Your task to perform on an android device: Check the weather Image 0: 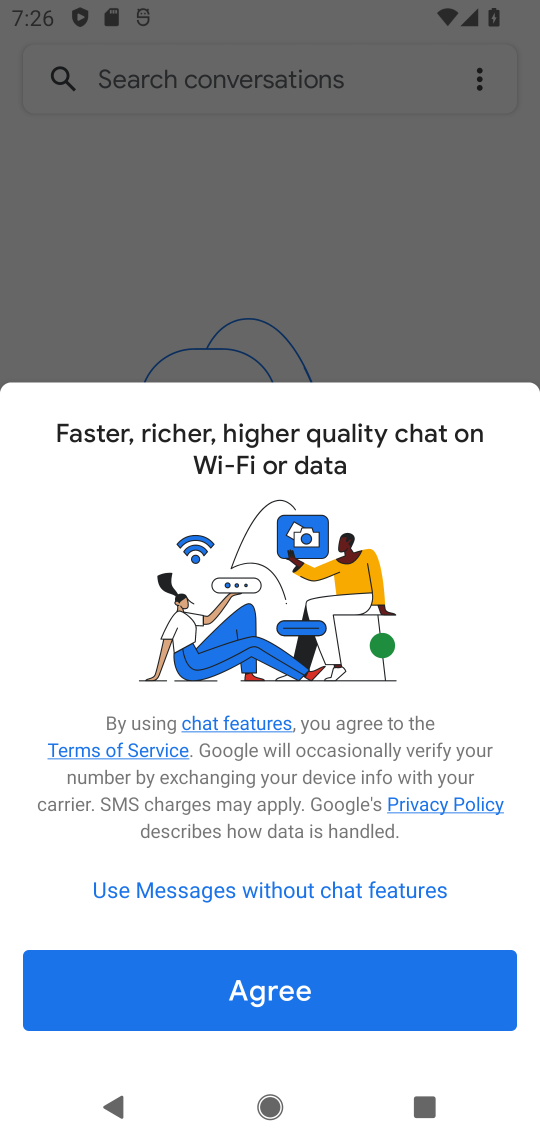
Step 0: press home button
Your task to perform on an android device: Check the weather Image 1: 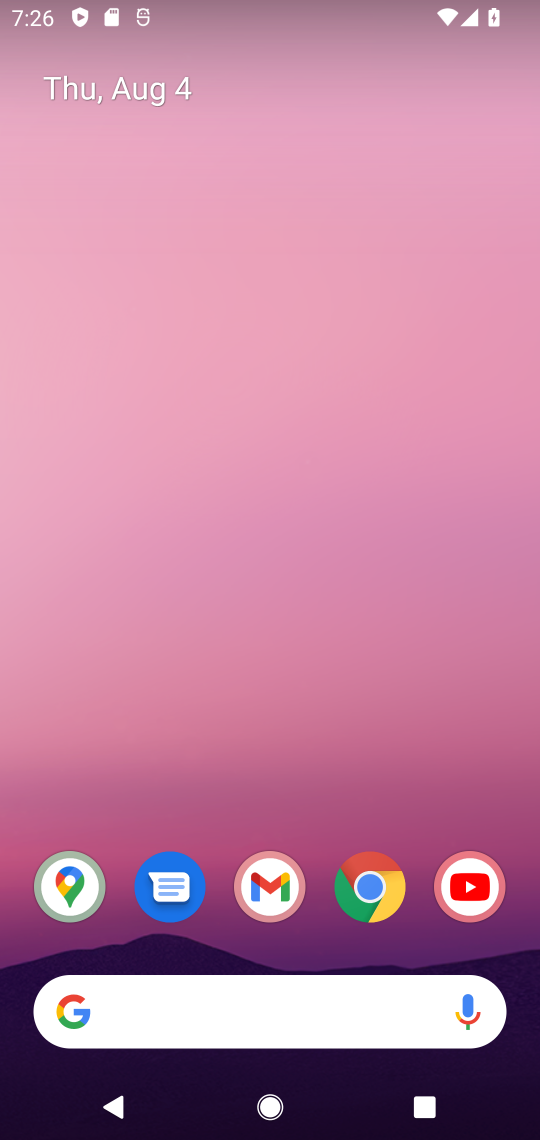
Step 1: drag from (299, 957) to (274, 582)
Your task to perform on an android device: Check the weather Image 2: 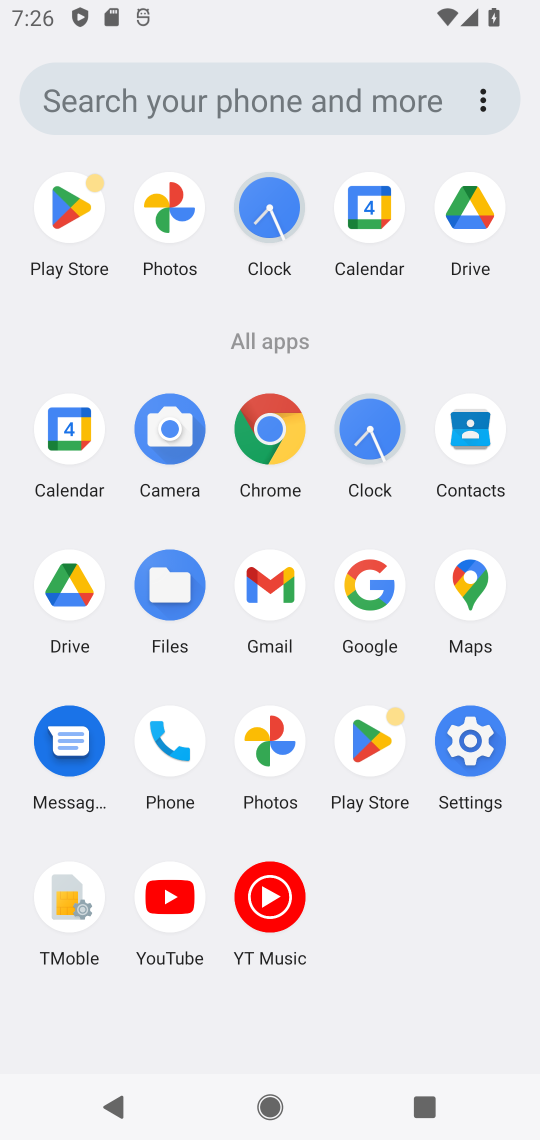
Step 2: click (356, 585)
Your task to perform on an android device: Check the weather Image 3: 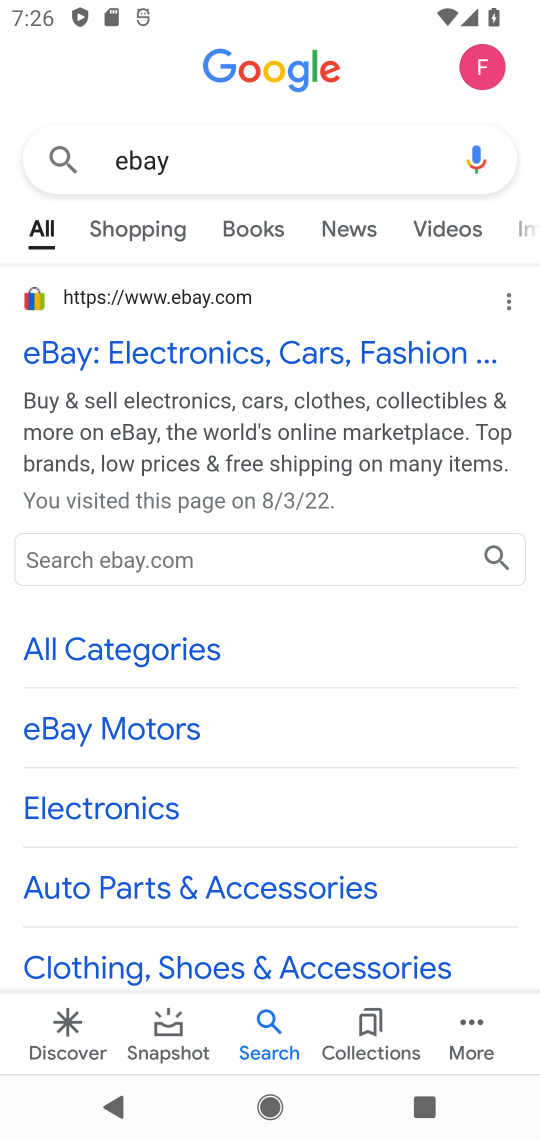
Step 3: click (213, 161)
Your task to perform on an android device: Check the weather Image 4: 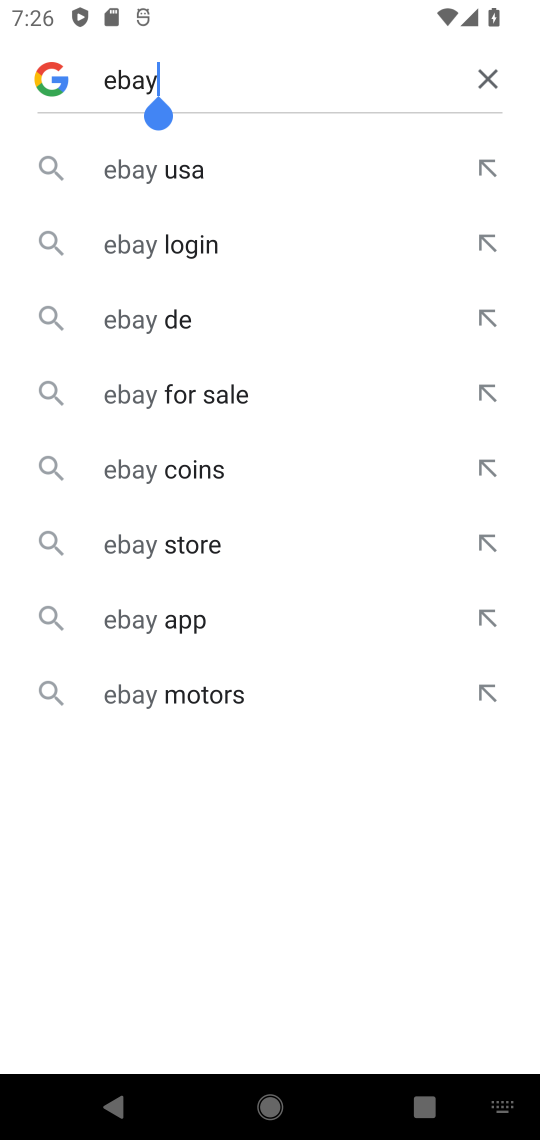
Step 4: click (487, 80)
Your task to perform on an android device: Check the weather Image 5: 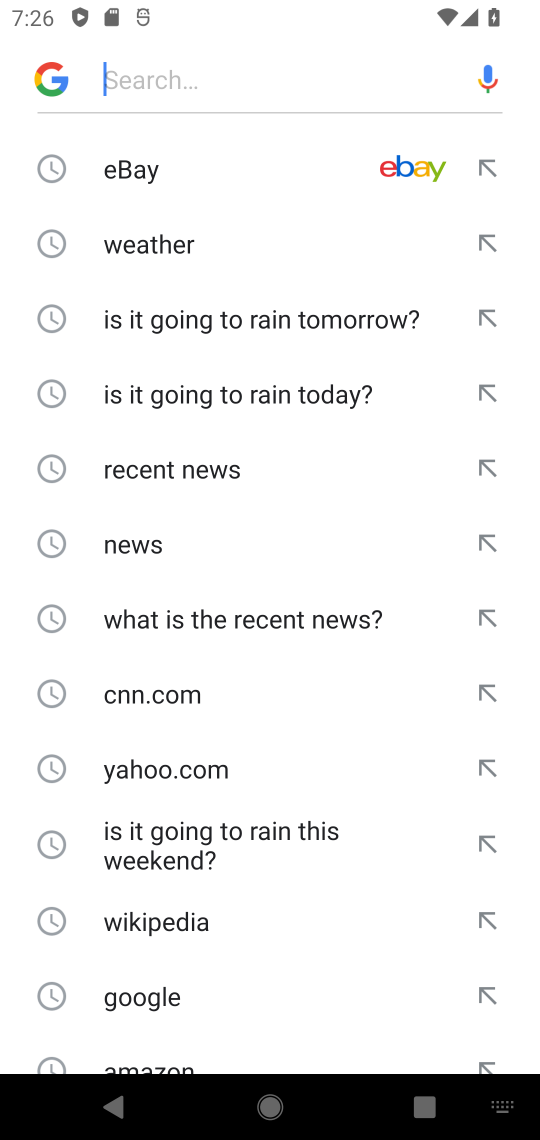
Step 5: click (149, 250)
Your task to perform on an android device: Check the weather Image 6: 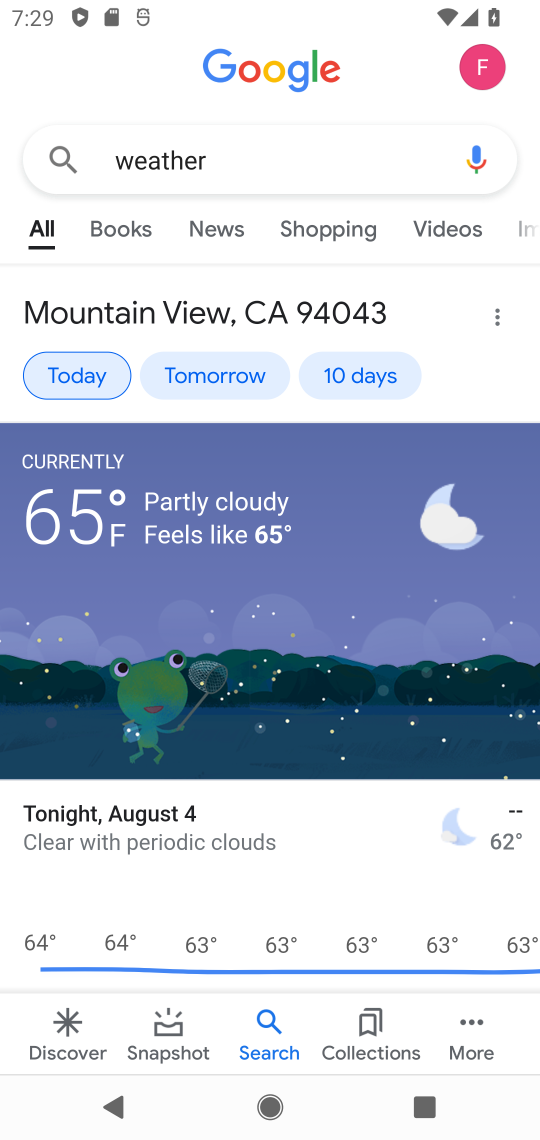
Step 6: task complete